Your task to perform on an android device: Open privacy settings Image 0: 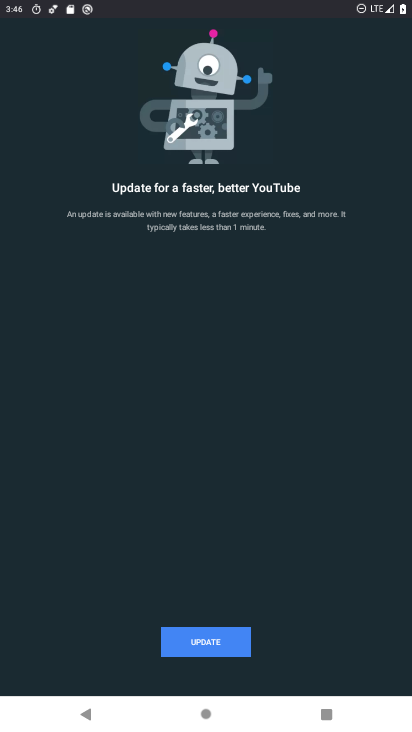
Step 0: press home button
Your task to perform on an android device: Open privacy settings Image 1: 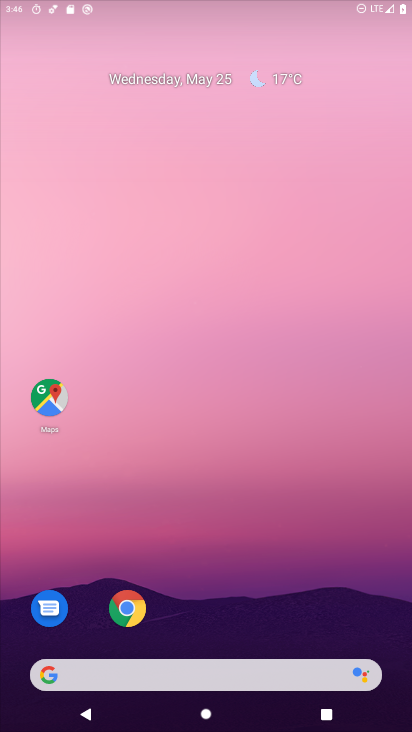
Step 1: drag from (271, 361) to (220, 86)
Your task to perform on an android device: Open privacy settings Image 2: 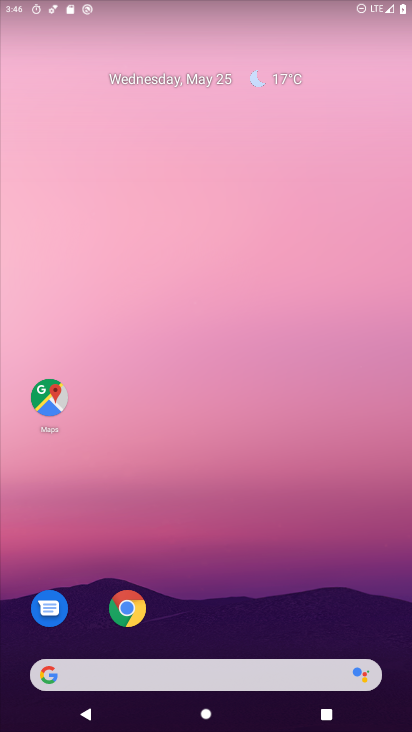
Step 2: drag from (224, 554) to (194, 119)
Your task to perform on an android device: Open privacy settings Image 3: 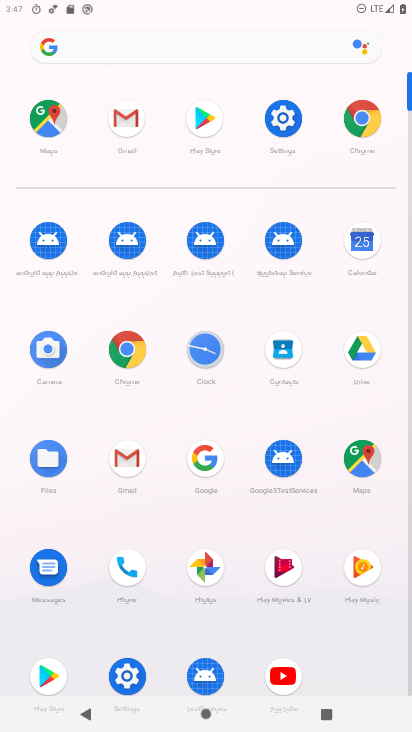
Step 3: click (272, 120)
Your task to perform on an android device: Open privacy settings Image 4: 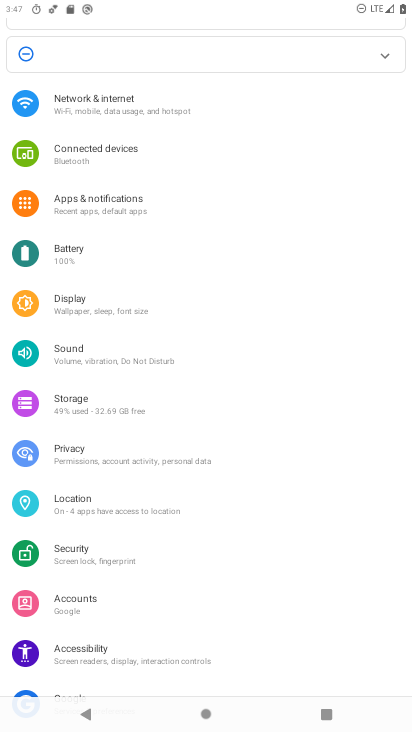
Step 4: drag from (122, 519) to (197, 57)
Your task to perform on an android device: Open privacy settings Image 5: 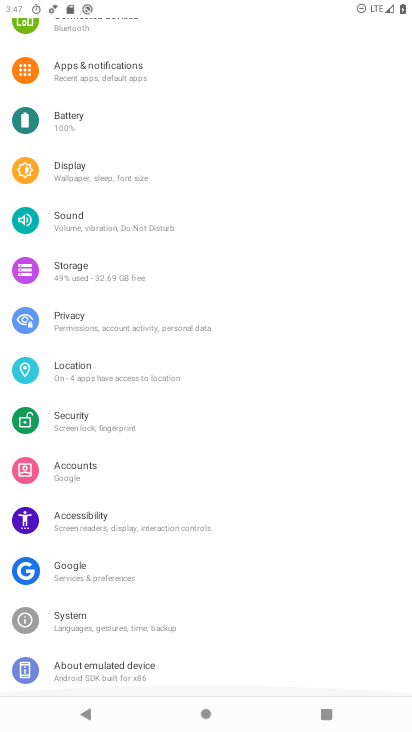
Step 5: drag from (210, 108) to (270, 160)
Your task to perform on an android device: Open privacy settings Image 6: 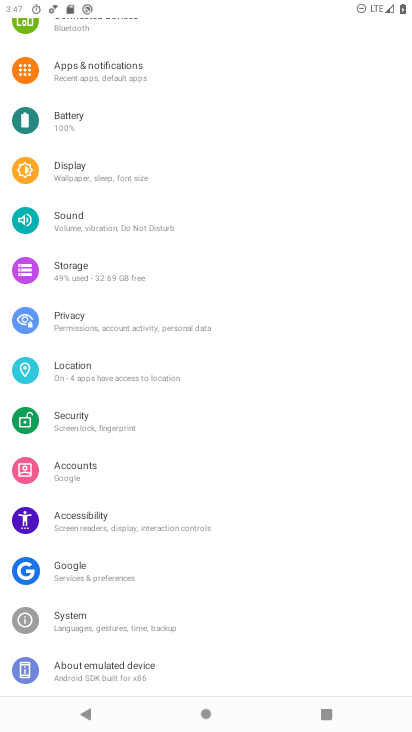
Step 6: click (122, 321)
Your task to perform on an android device: Open privacy settings Image 7: 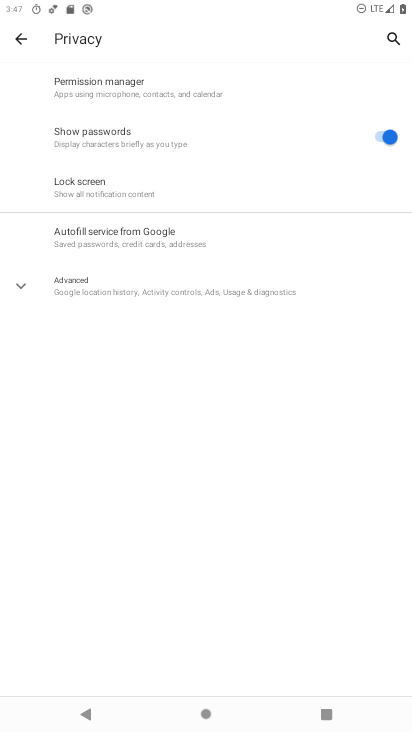
Step 7: task complete